Your task to perform on an android device: Go to Maps Image 0: 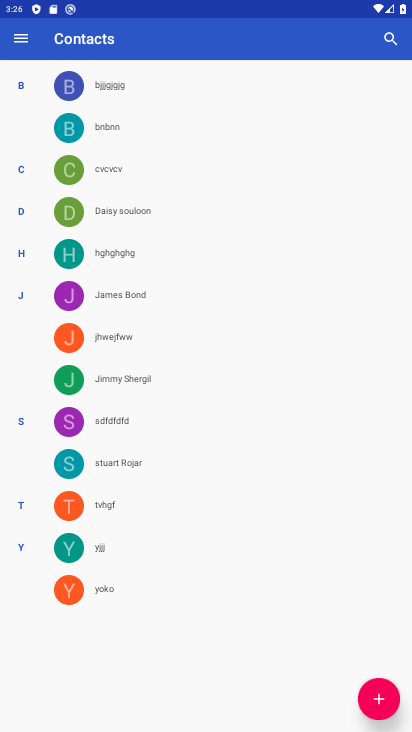
Step 0: press back button
Your task to perform on an android device: Go to Maps Image 1: 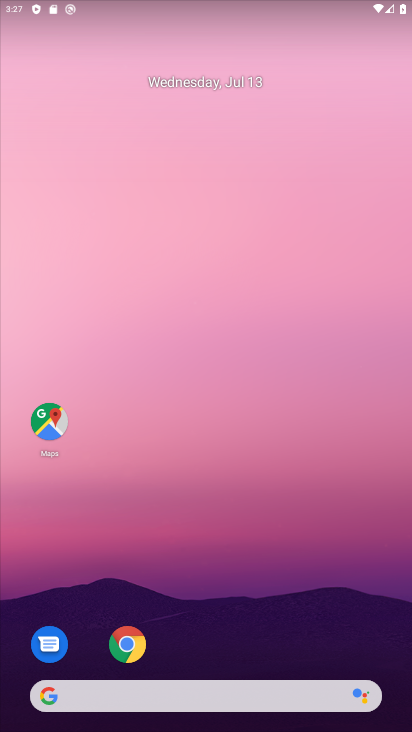
Step 1: click (37, 427)
Your task to perform on an android device: Go to Maps Image 2: 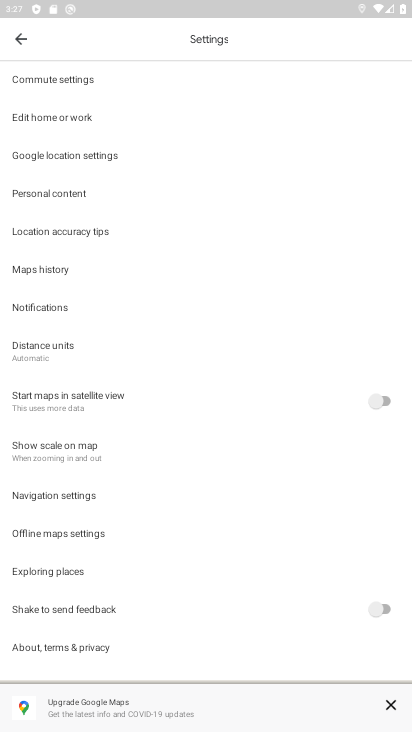
Step 2: click (22, 36)
Your task to perform on an android device: Go to Maps Image 3: 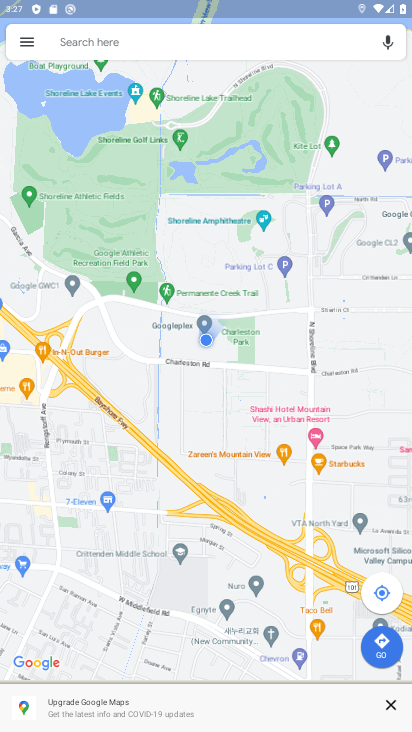
Step 3: task complete